Your task to perform on an android device: turn off notifications in google photos Image 0: 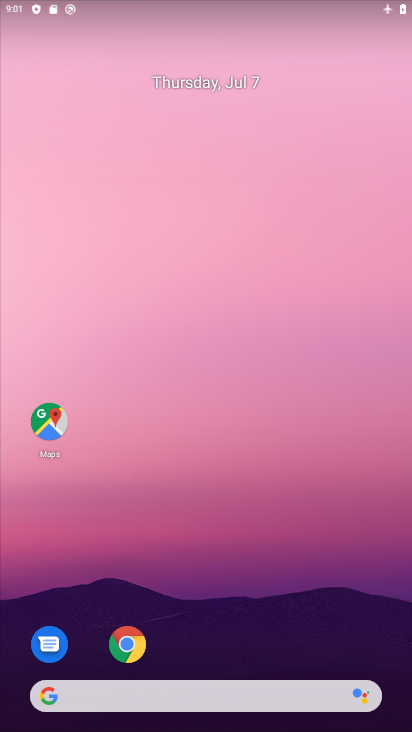
Step 0: drag from (297, 615) to (247, 148)
Your task to perform on an android device: turn off notifications in google photos Image 1: 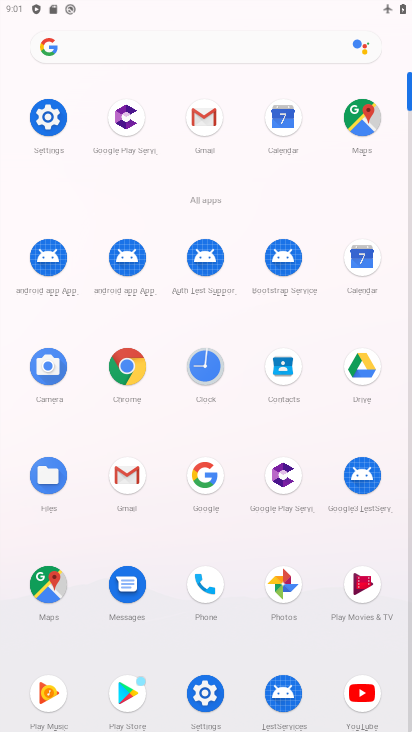
Step 1: click (289, 583)
Your task to perform on an android device: turn off notifications in google photos Image 2: 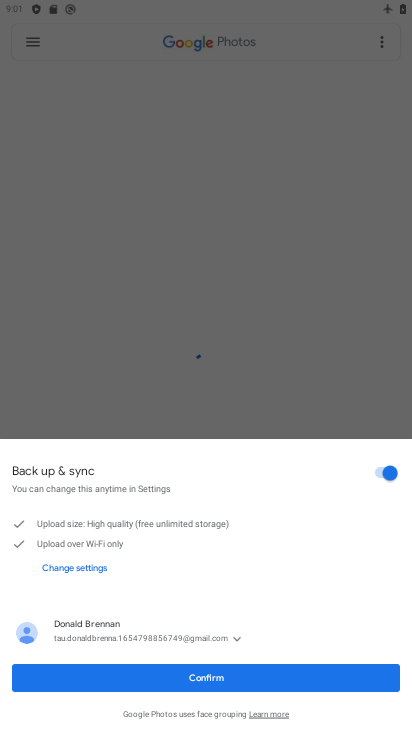
Step 2: click (230, 676)
Your task to perform on an android device: turn off notifications in google photos Image 3: 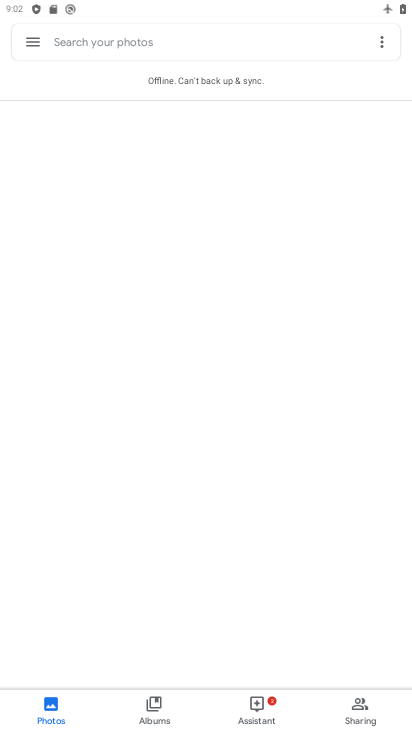
Step 3: click (38, 41)
Your task to perform on an android device: turn off notifications in google photos Image 4: 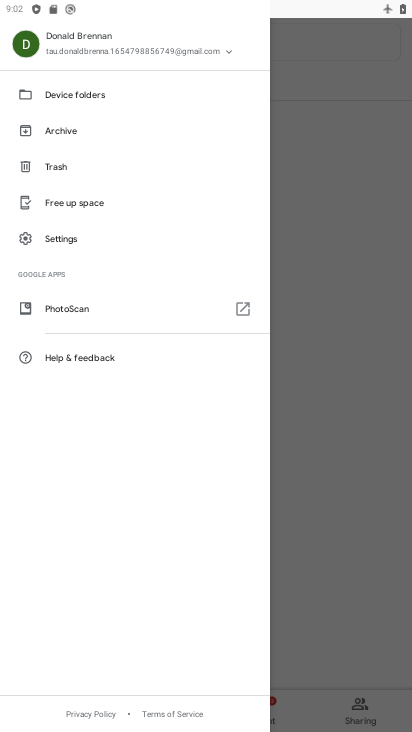
Step 4: click (71, 242)
Your task to perform on an android device: turn off notifications in google photos Image 5: 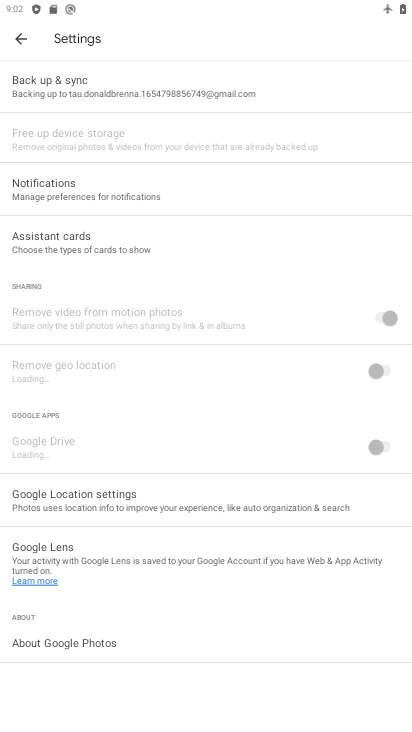
Step 5: click (88, 189)
Your task to perform on an android device: turn off notifications in google photos Image 6: 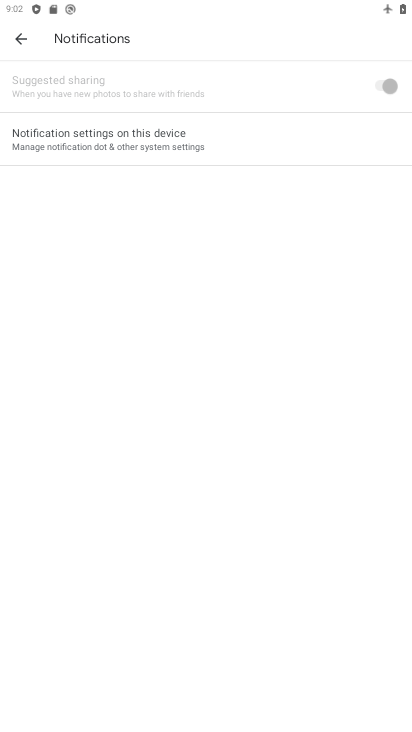
Step 6: click (51, 145)
Your task to perform on an android device: turn off notifications in google photos Image 7: 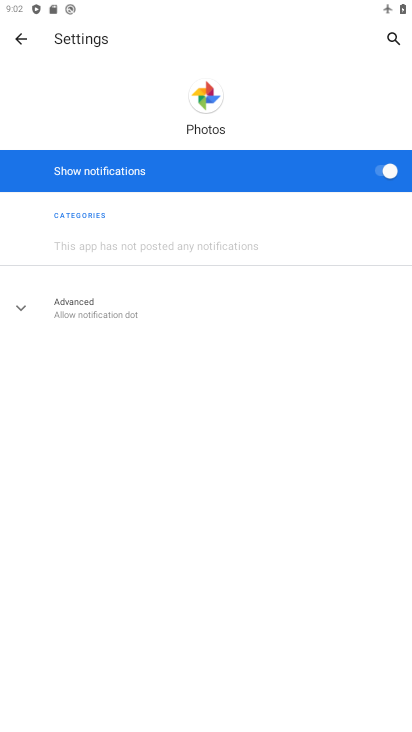
Step 7: click (379, 171)
Your task to perform on an android device: turn off notifications in google photos Image 8: 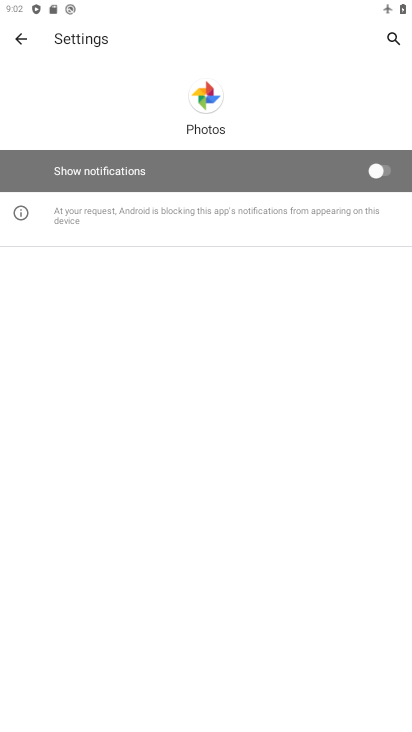
Step 8: task complete